Your task to perform on an android device: Clear the cart on amazon. Add razer blade to the cart on amazon Image 0: 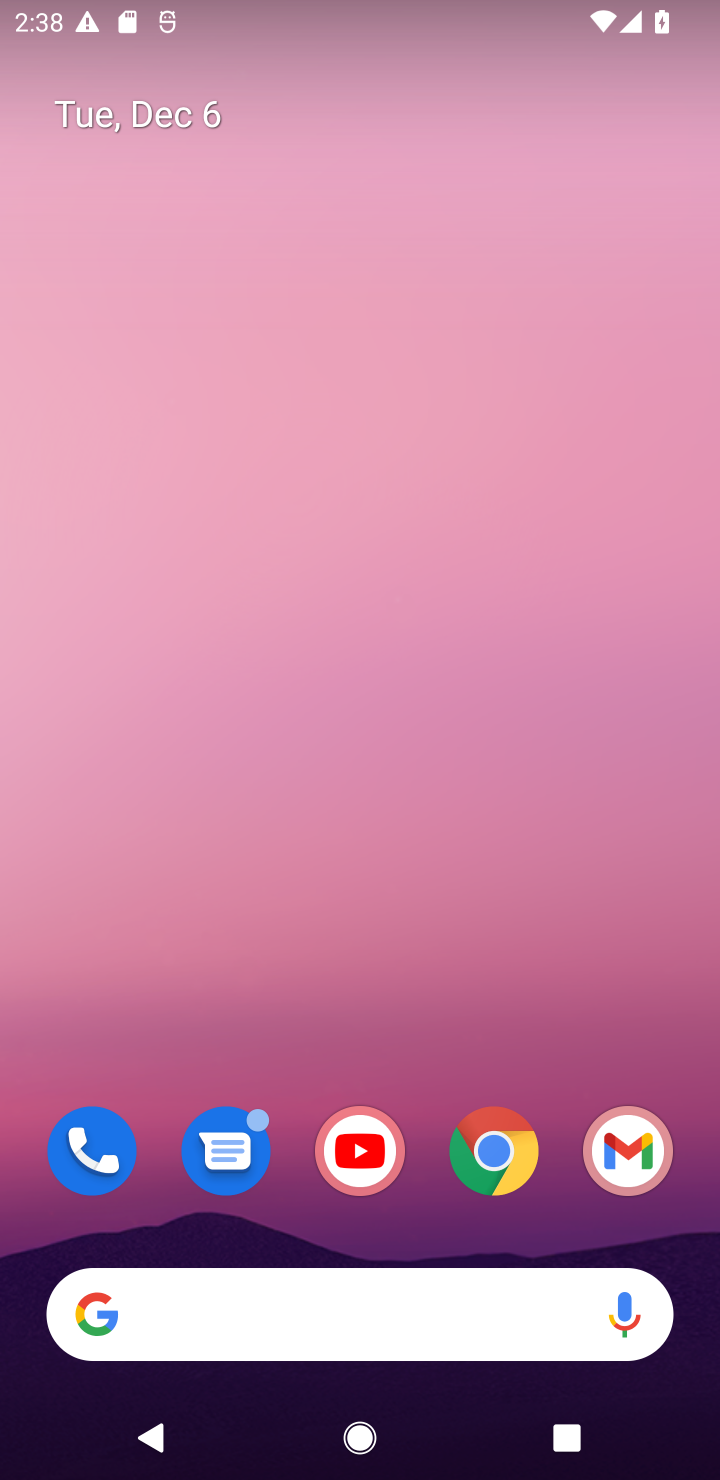
Step 0: click (483, 1157)
Your task to perform on an android device: Clear the cart on amazon. Add razer blade to the cart on amazon Image 1: 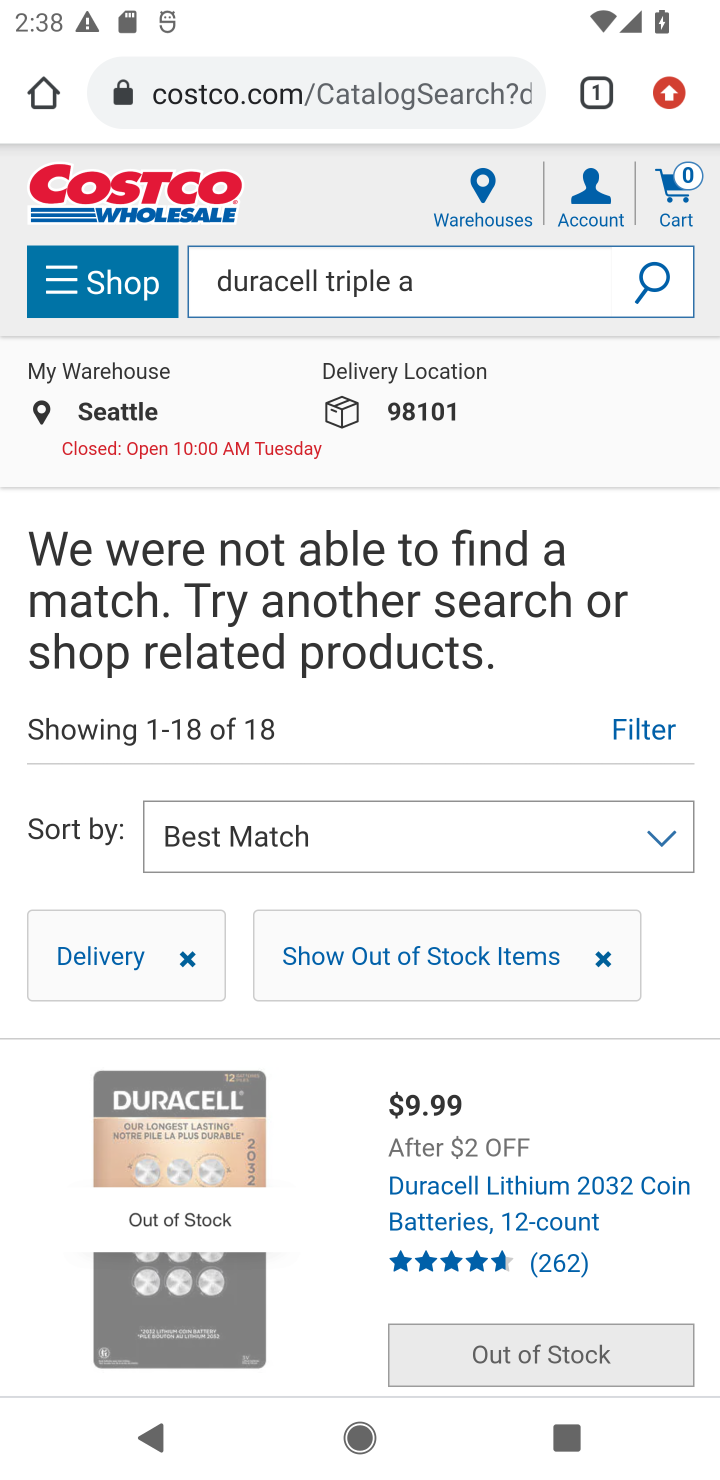
Step 1: click (304, 98)
Your task to perform on an android device: Clear the cart on amazon. Add razer blade to the cart on amazon Image 2: 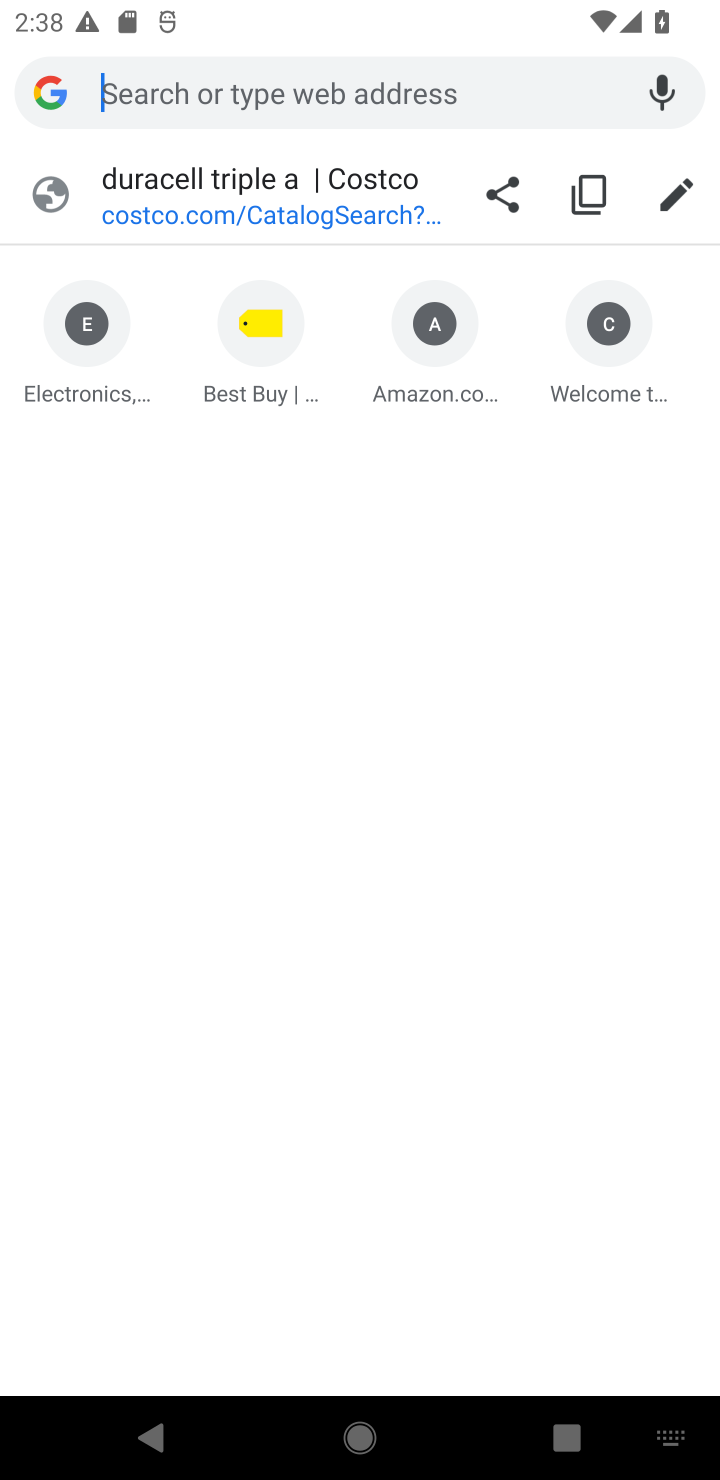
Step 2: click (460, 390)
Your task to perform on an android device: Clear the cart on amazon. Add razer blade to the cart on amazon Image 3: 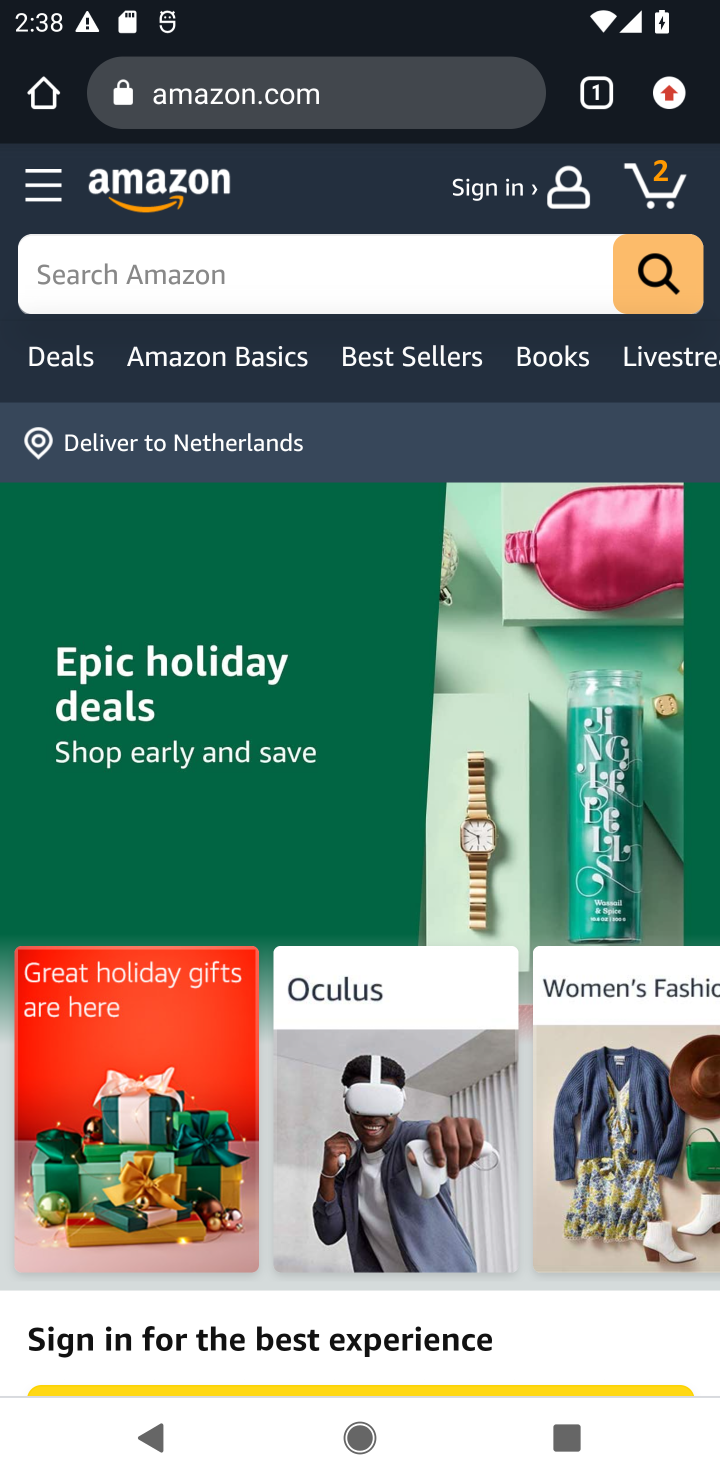
Step 3: click (670, 191)
Your task to perform on an android device: Clear the cart on amazon. Add razer blade to the cart on amazon Image 4: 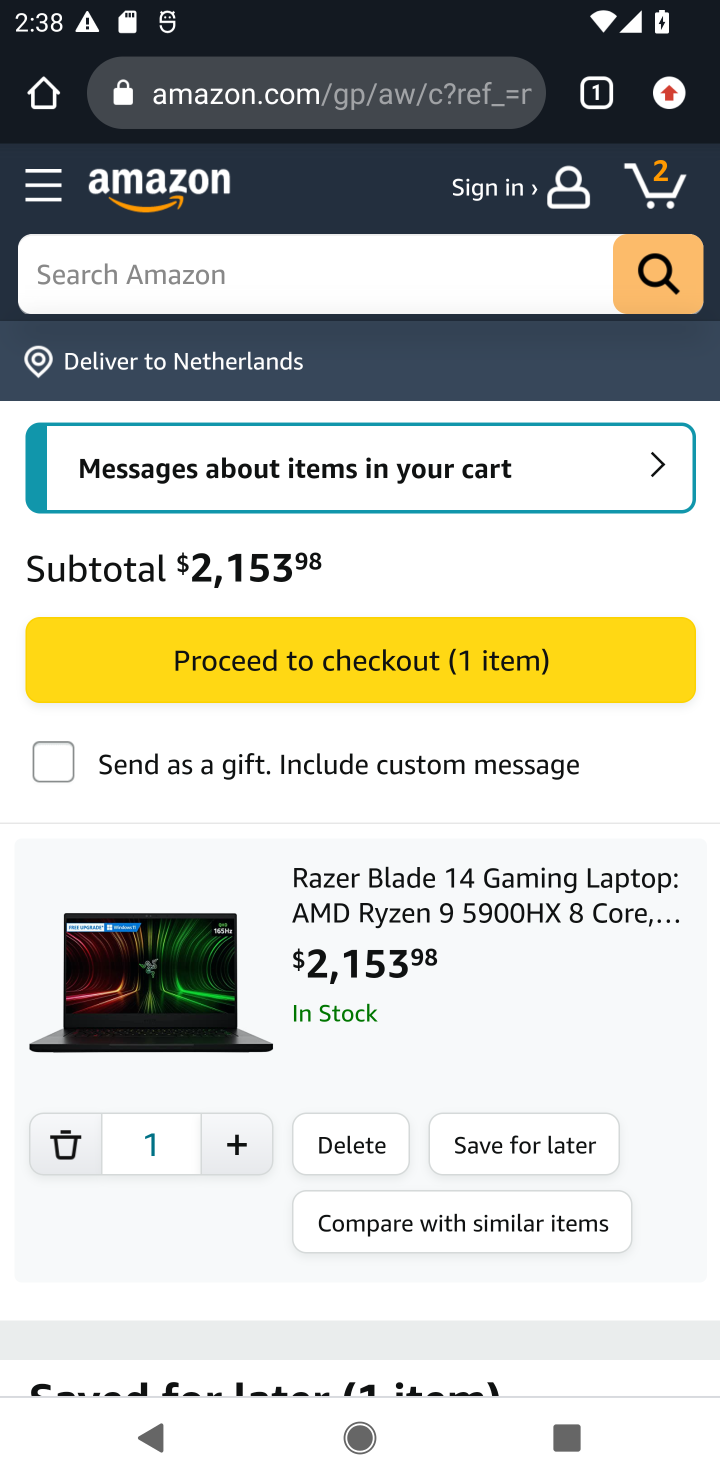
Step 4: click (354, 1153)
Your task to perform on an android device: Clear the cart on amazon. Add razer blade to the cart on amazon Image 5: 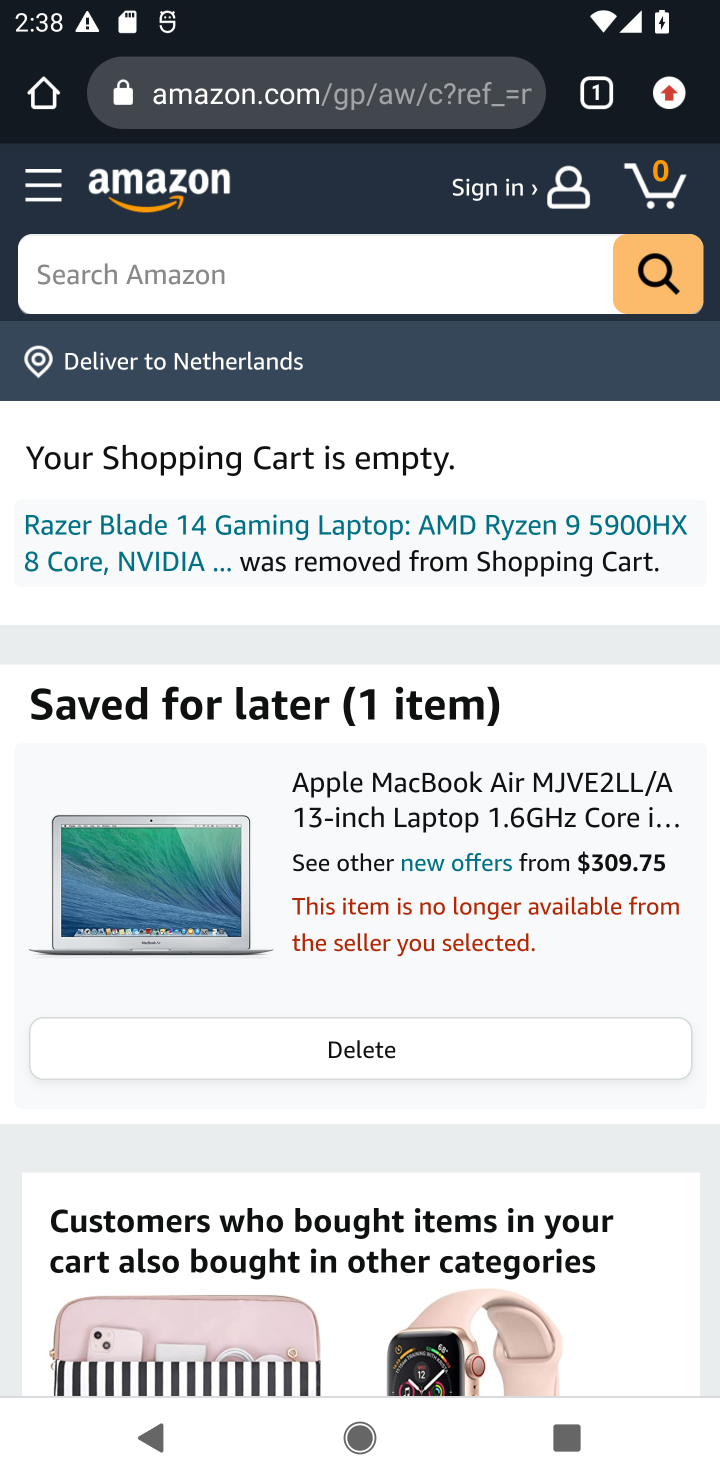
Step 5: click (268, 279)
Your task to perform on an android device: Clear the cart on amazon. Add razer blade to the cart on amazon Image 6: 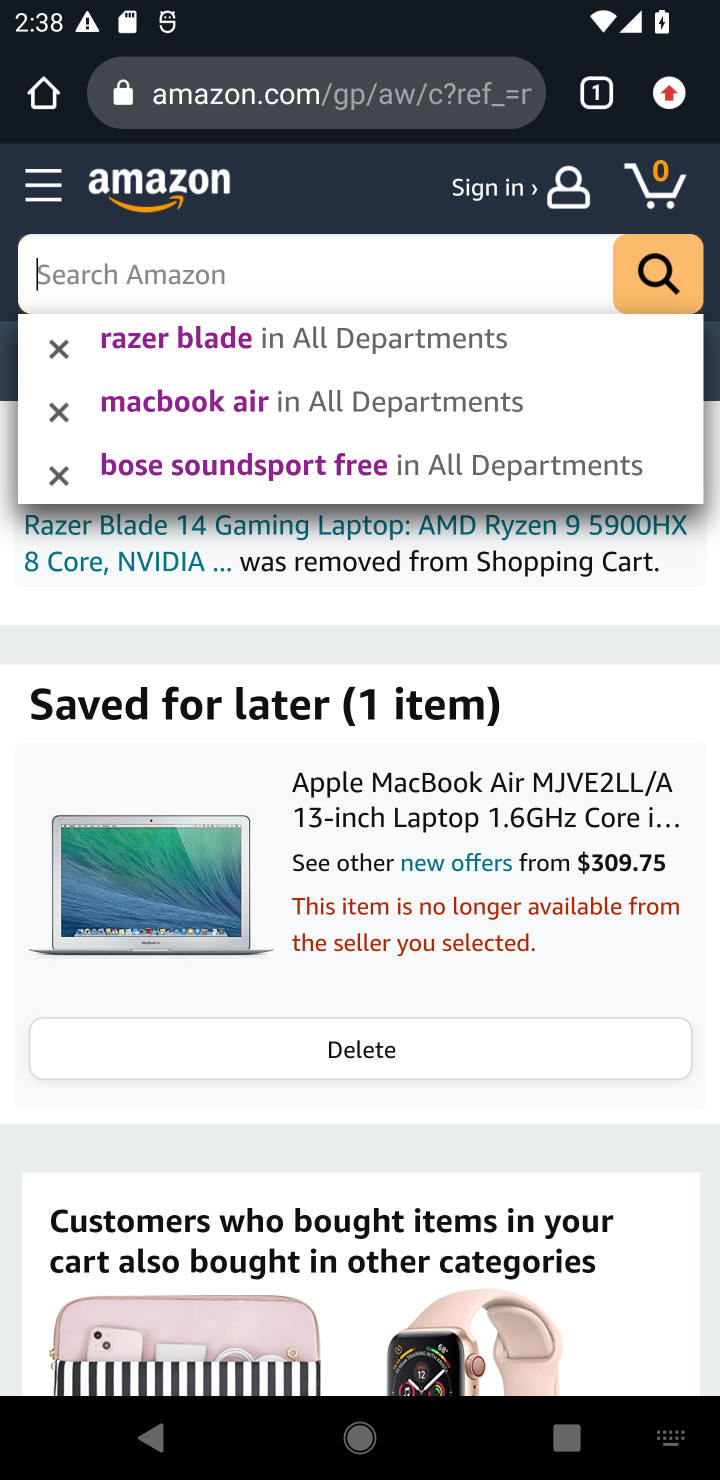
Step 6: type " razer blade "
Your task to perform on an android device: Clear the cart on amazon. Add razer blade to the cart on amazon Image 7: 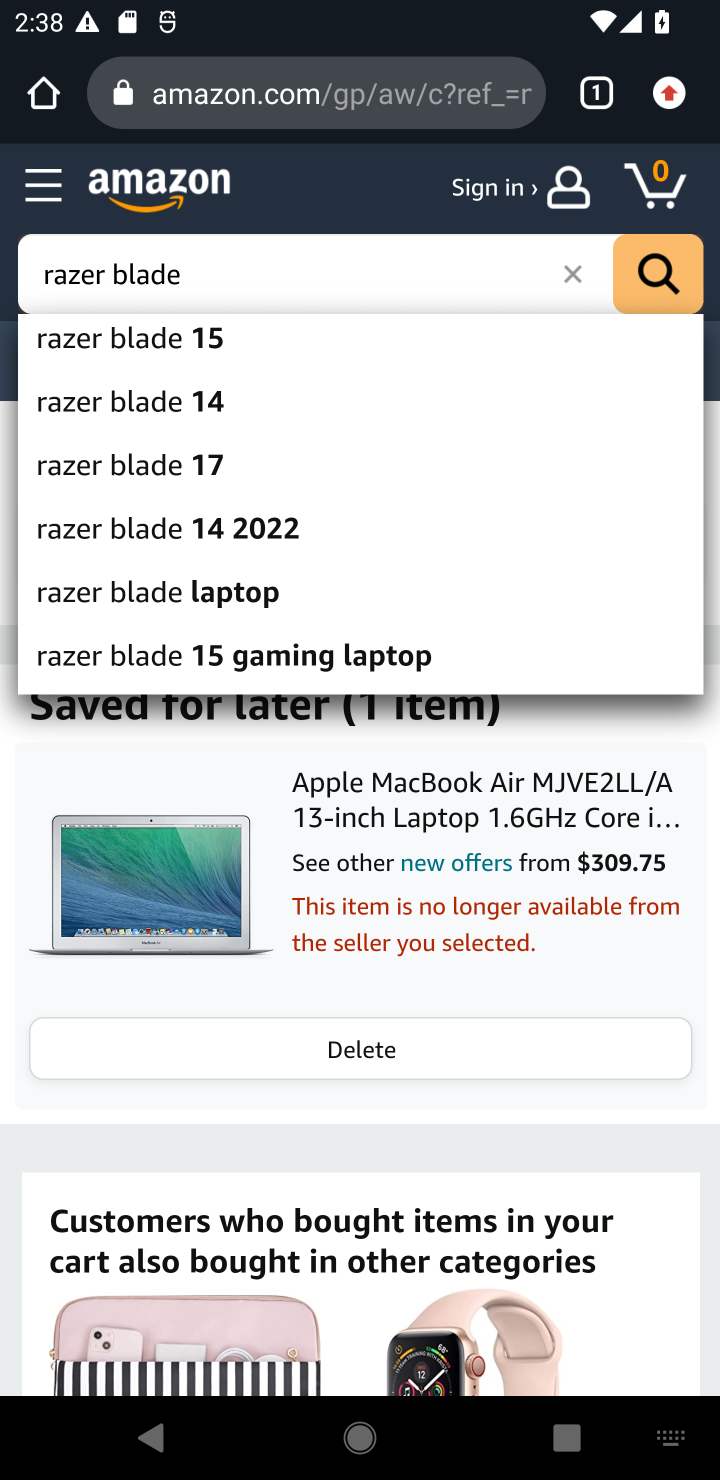
Step 7: click (143, 409)
Your task to perform on an android device: Clear the cart on amazon. Add razer blade to the cart on amazon Image 8: 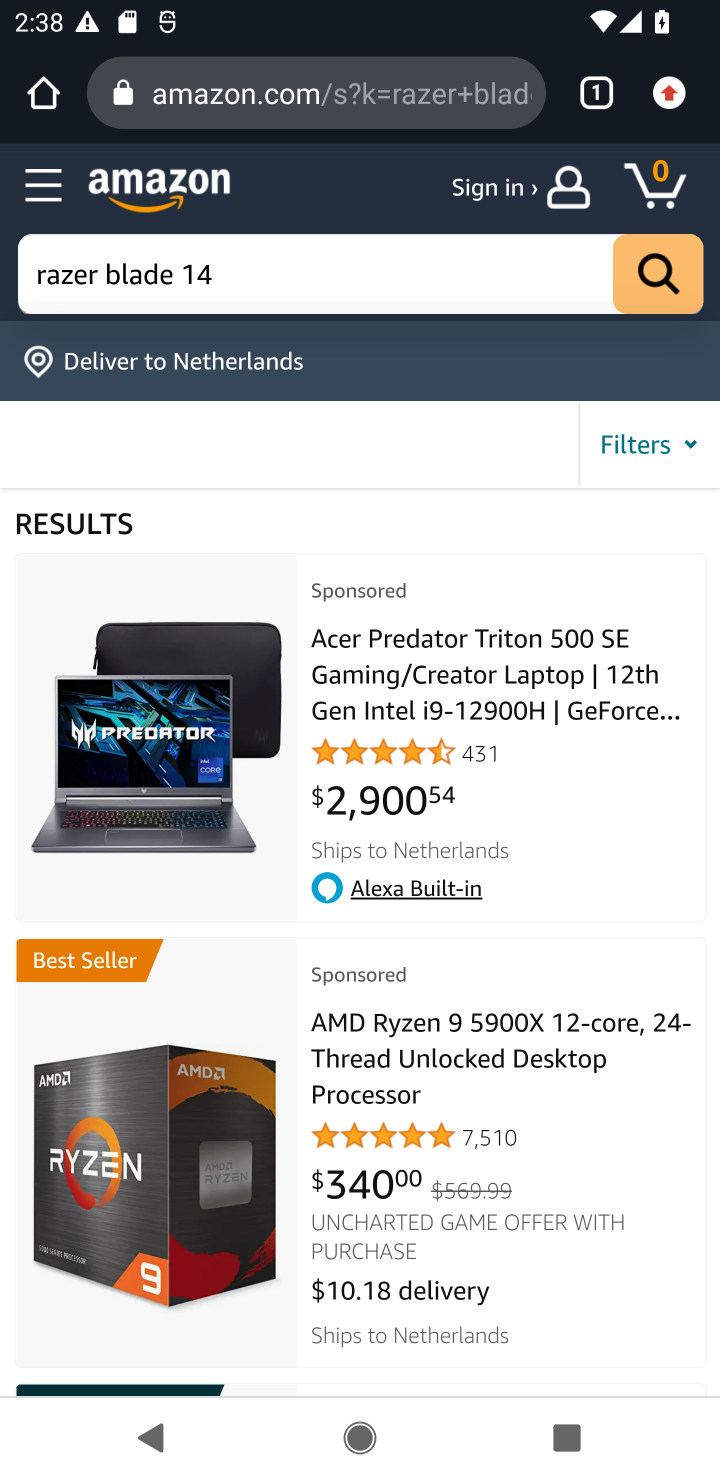
Step 8: drag from (213, 1134) to (201, 448)
Your task to perform on an android device: Clear the cart on amazon. Add razer blade to the cart on amazon Image 9: 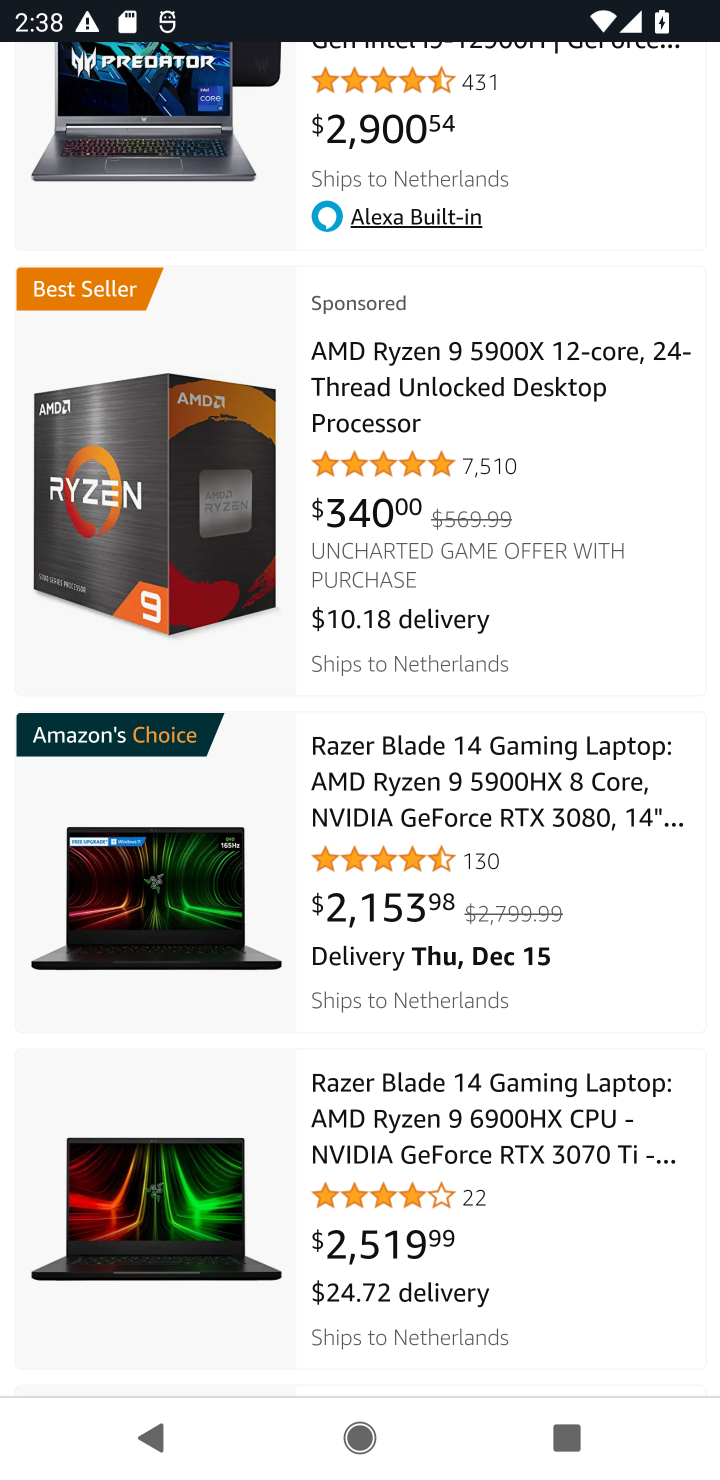
Step 9: click (530, 854)
Your task to perform on an android device: Clear the cart on amazon. Add razer blade to the cart on amazon Image 10: 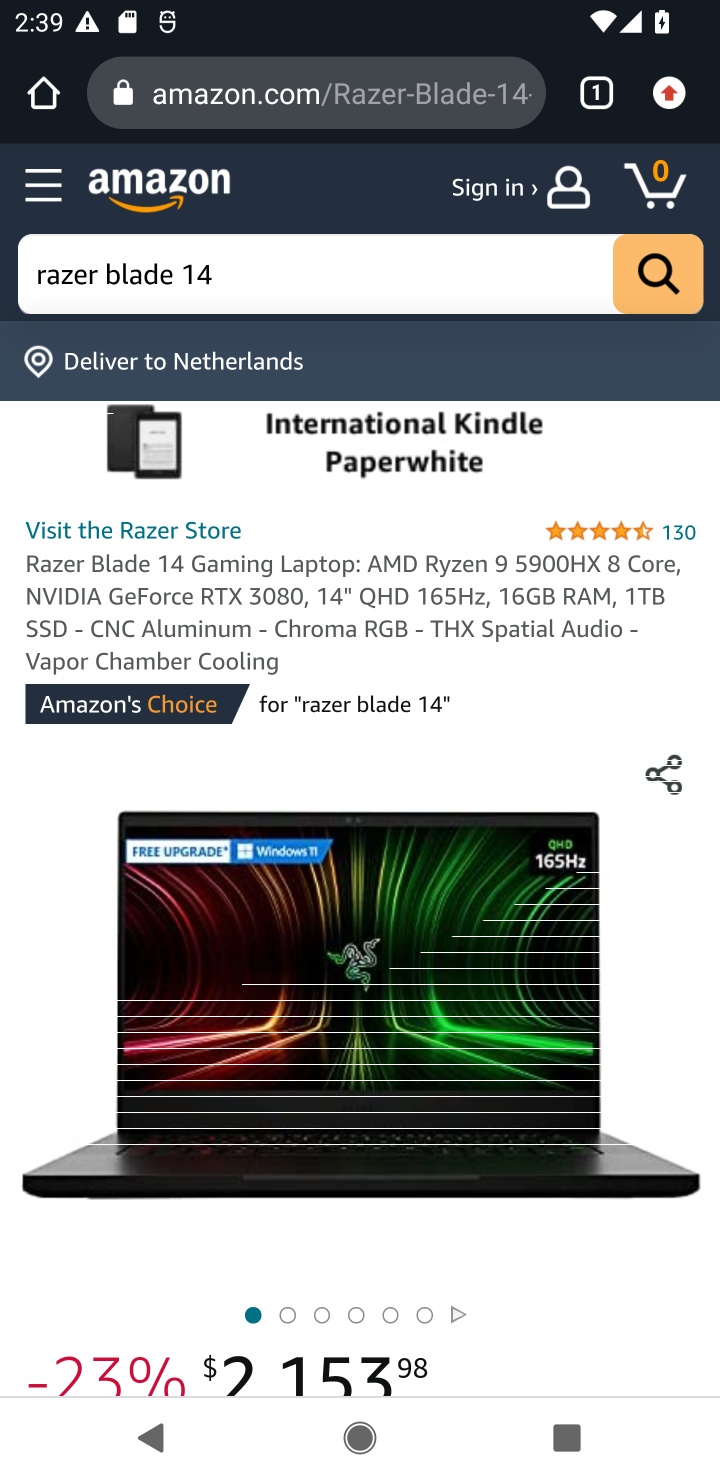
Step 10: drag from (323, 1039) to (298, 210)
Your task to perform on an android device: Clear the cart on amazon. Add razer blade to the cart on amazon Image 11: 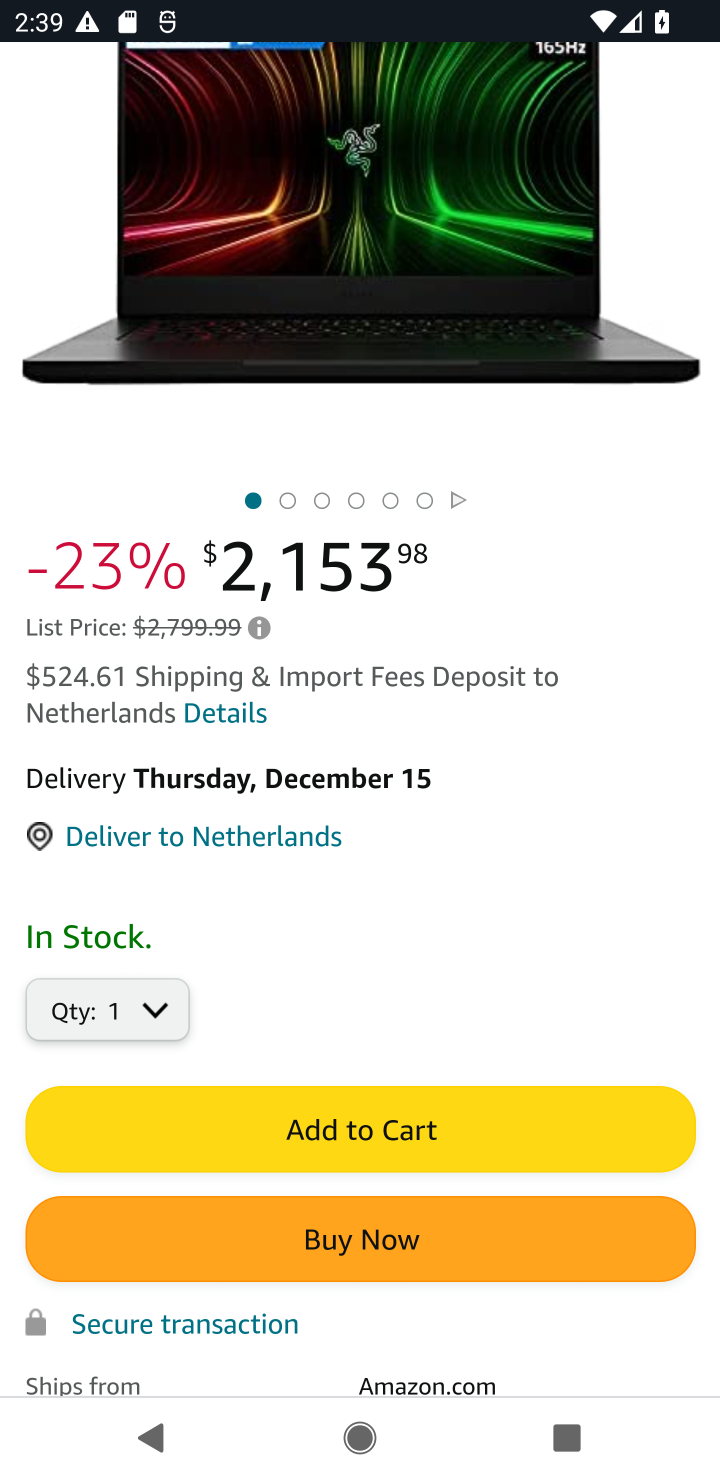
Step 11: click (297, 1122)
Your task to perform on an android device: Clear the cart on amazon. Add razer blade to the cart on amazon Image 12: 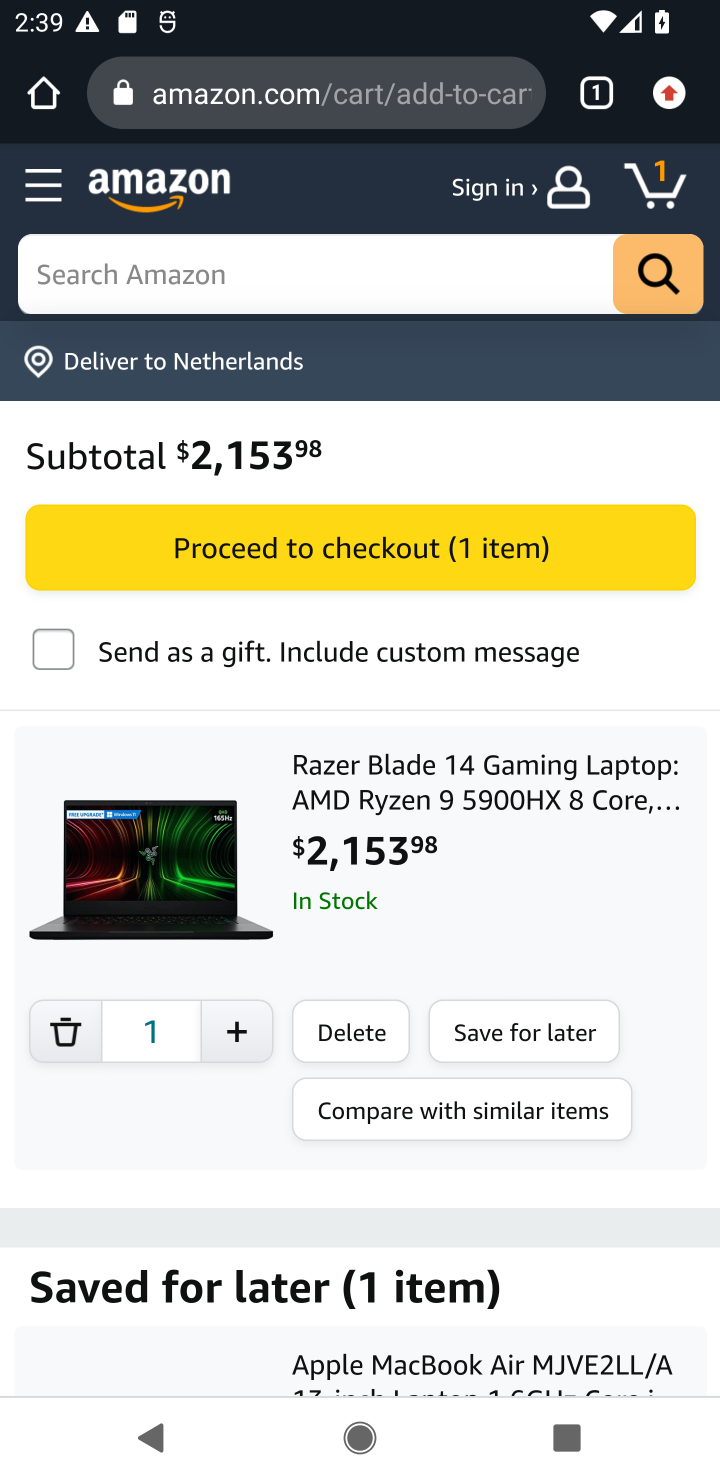
Step 12: task complete